Your task to perform on an android device: Search for vegetarian restaurants on Maps Image 0: 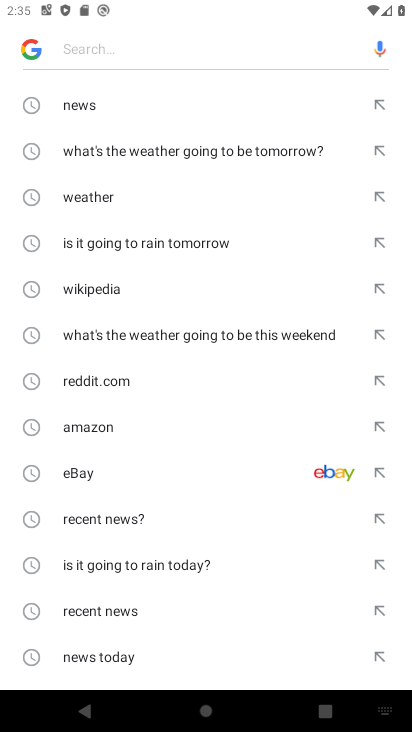
Step 0: press home button
Your task to perform on an android device: Search for vegetarian restaurants on Maps Image 1: 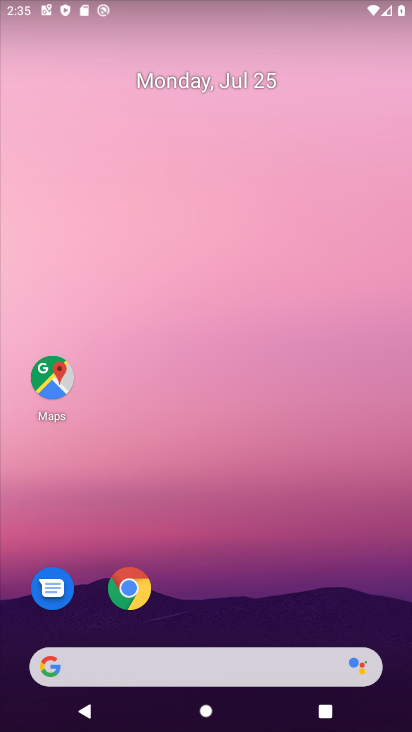
Step 1: click (50, 391)
Your task to perform on an android device: Search for vegetarian restaurants on Maps Image 2: 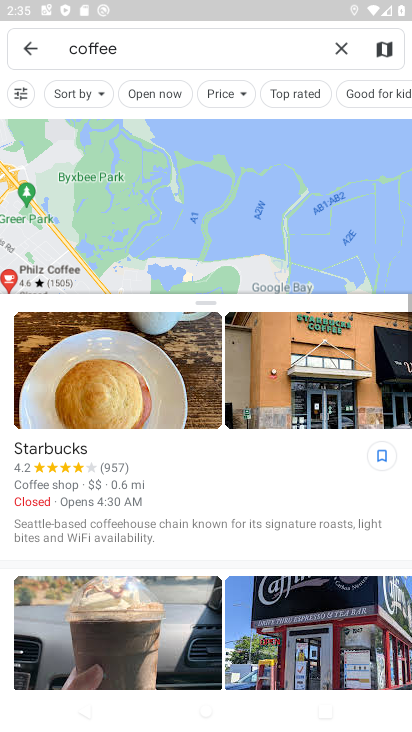
Step 2: click (340, 50)
Your task to perform on an android device: Search for vegetarian restaurants on Maps Image 3: 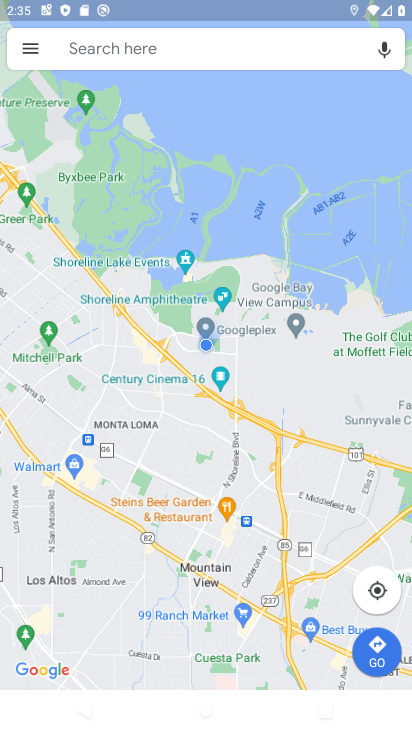
Step 3: type "vegetarian restaurant"
Your task to perform on an android device: Search for vegetarian restaurants on Maps Image 4: 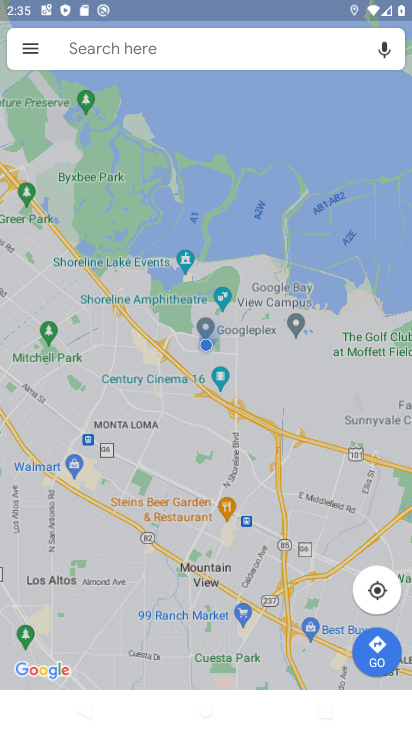
Step 4: type ""
Your task to perform on an android device: Search for vegetarian restaurants on Maps Image 5: 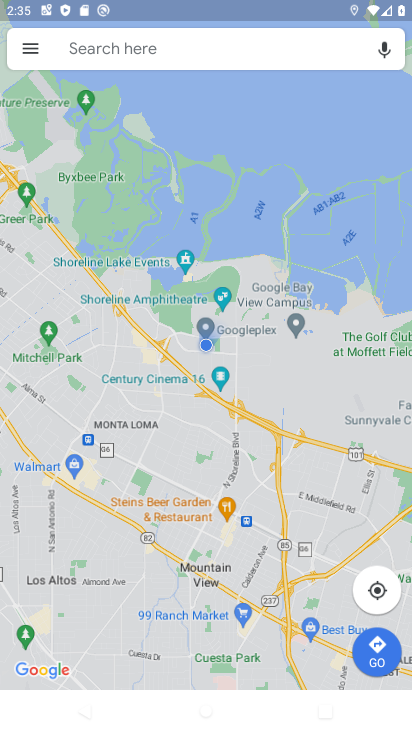
Step 5: click (222, 51)
Your task to perform on an android device: Search for vegetarian restaurants on Maps Image 6: 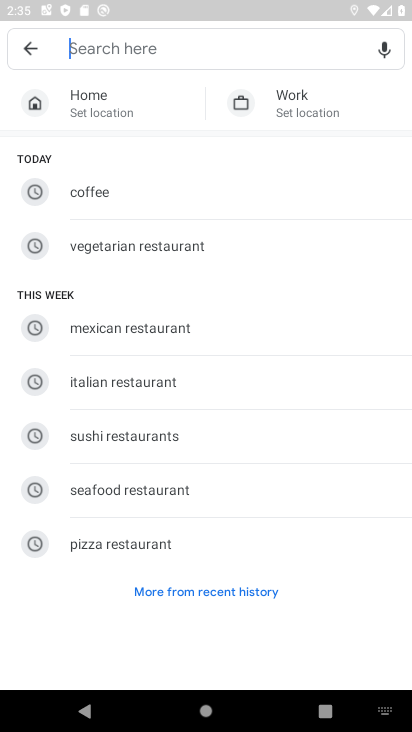
Step 6: click (182, 251)
Your task to perform on an android device: Search for vegetarian restaurants on Maps Image 7: 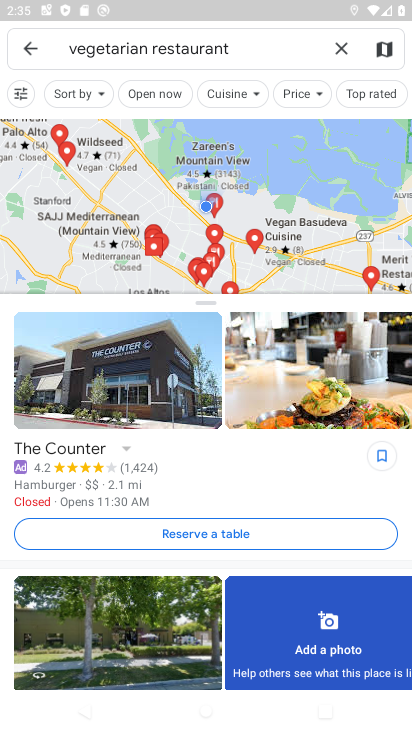
Step 7: task complete